Your task to perform on an android device: Go to Google maps Image 0: 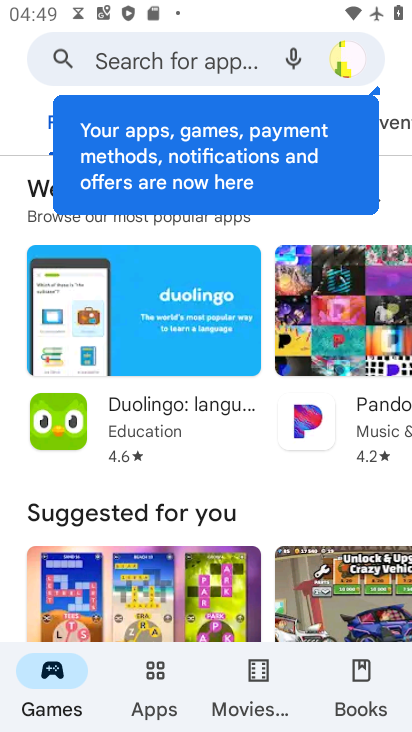
Step 0: press back button
Your task to perform on an android device: Go to Google maps Image 1: 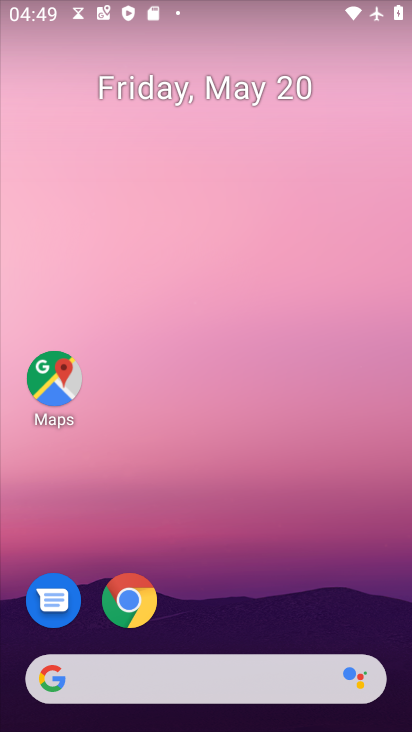
Step 1: drag from (201, 568) to (198, 63)
Your task to perform on an android device: Go to Google maps Image 2: 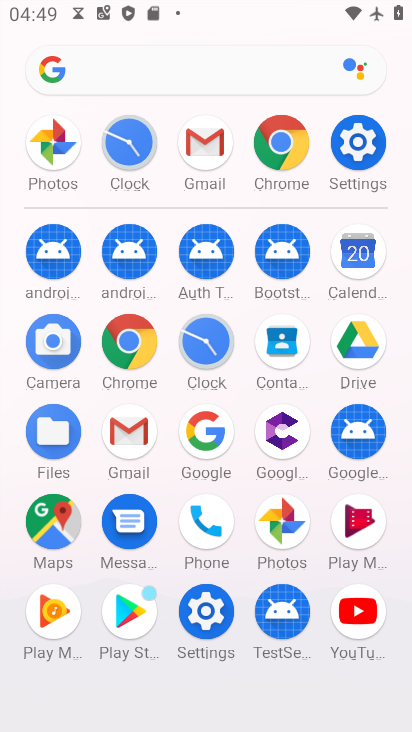
Step 2: click (56, 522)
Your task to perform on an android device: Go to Google maps Image 3: 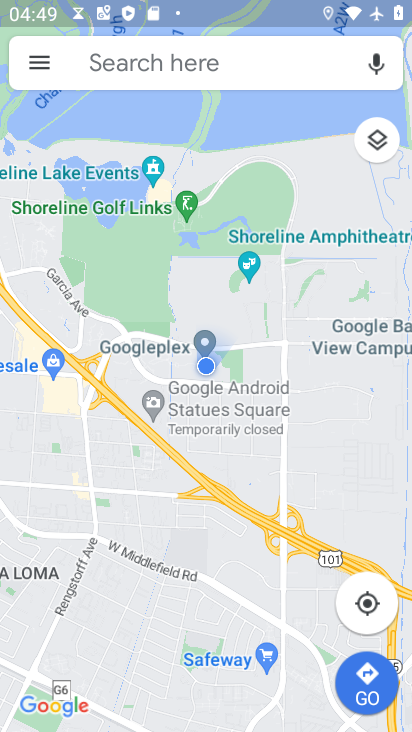
Step 3: task complete